Your task to perform on an android device: Go to network settings Image 0: 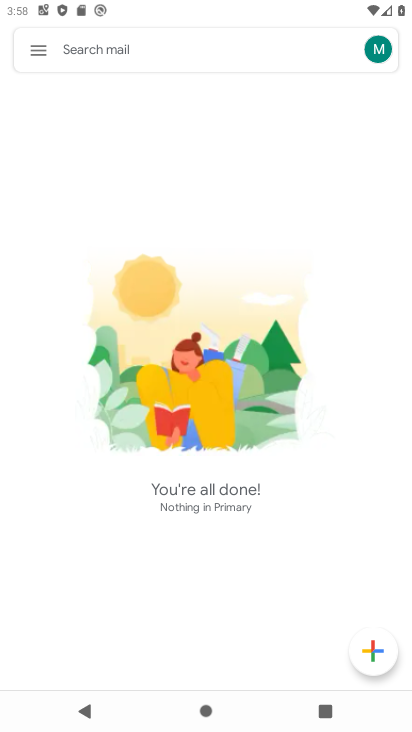
Step 0: press home button
Your task to perform on an android device: Go to network settings Image 1: 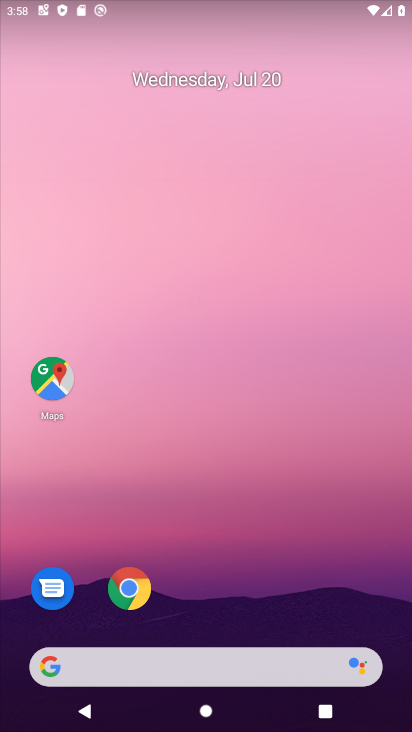
Step 1: drag from (280, 583) to (300, 39)
Your task to perform on an android device: Go to network settings Image 2: 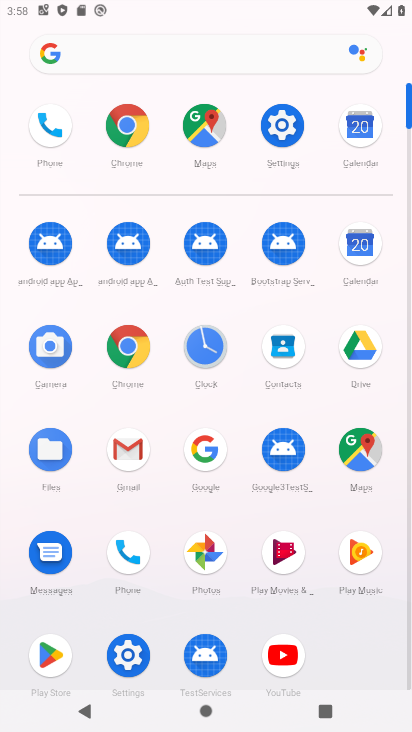
Step 2: click (132, 648)
Your task to perform on an android device: Go to network settings Image 3: 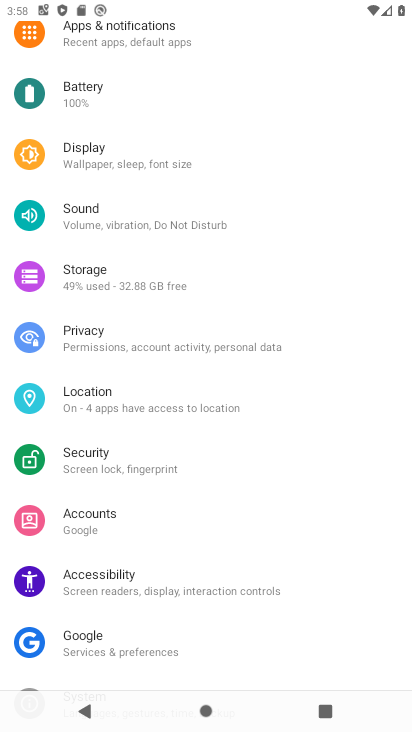
Step 3: drag from (170, 63) to (177, 398)
Your task to perform on an android device: Go to network settings Image 4: 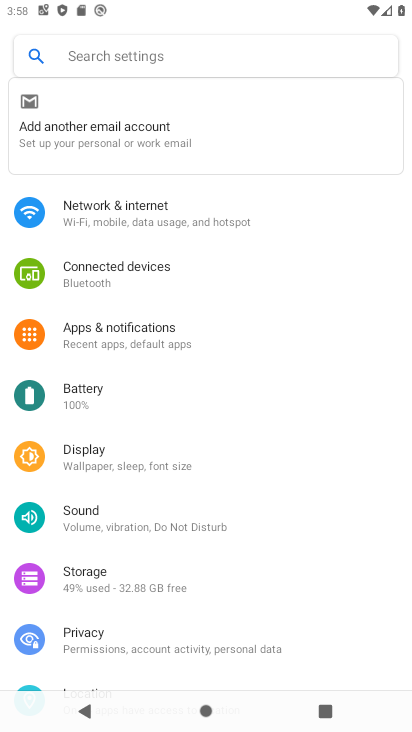
Step 4: click (137, 216)
Your task to perform on an android device: Go to network settings Image 5: 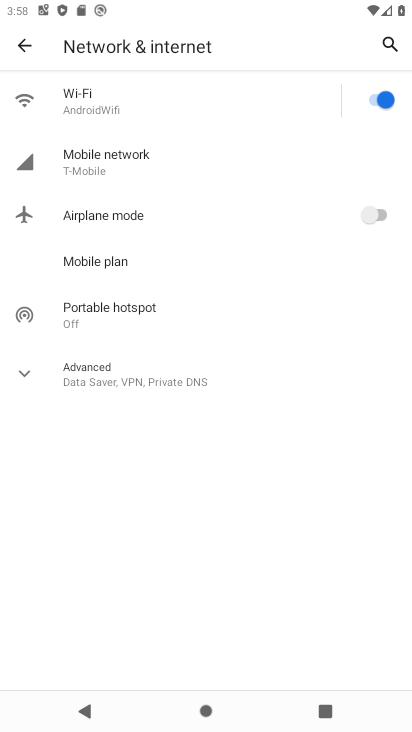
Step 5: task complete